Your task to perform on an android device: open a bookmark in the chrome app Image 0: 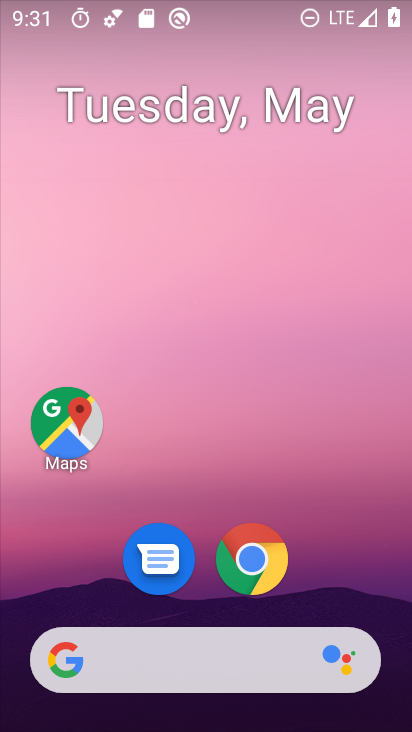
Step 0: drag from (390, 625) to (250, 9)
Your task to perform on an android device: open a bookmark in the chrome app Image 1: 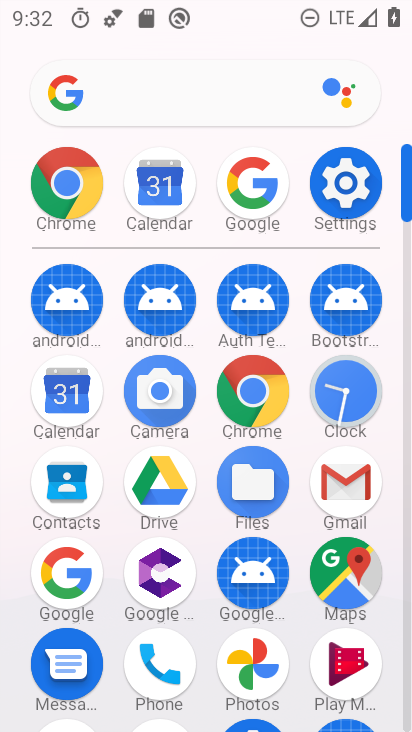
Step 1: click (277, 373)
Your task to perform on an android device: open a bookmark in the chrome app Image 2: 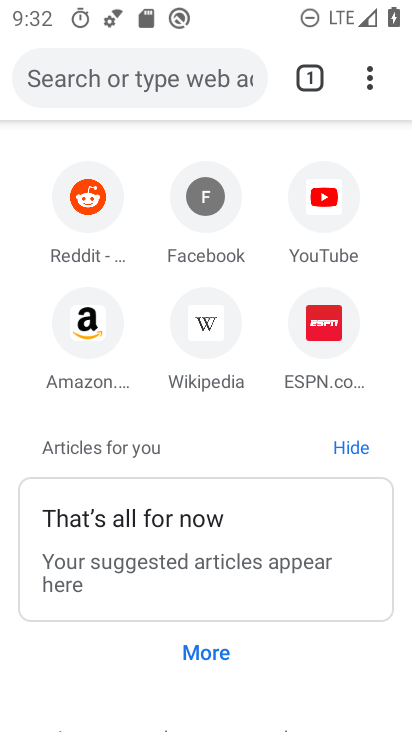
Step 2: click (372, 75)
Your task to perform on an android device: open a bookmark in the chrome app Image 3: 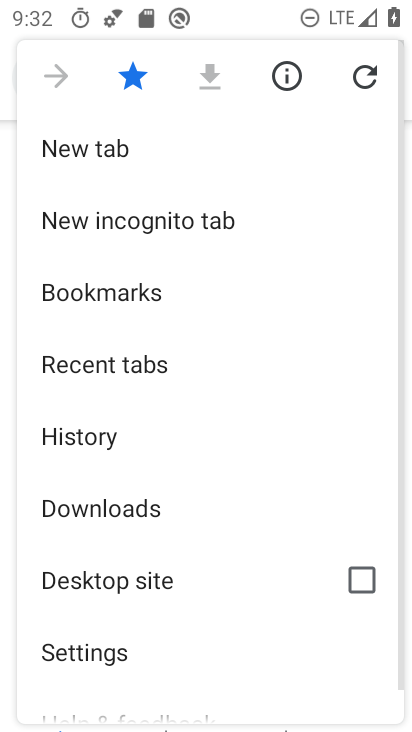
Step 3: click (73, 308)
Your task to perform on an android device: open a bookmark in the chrome app Image 4: 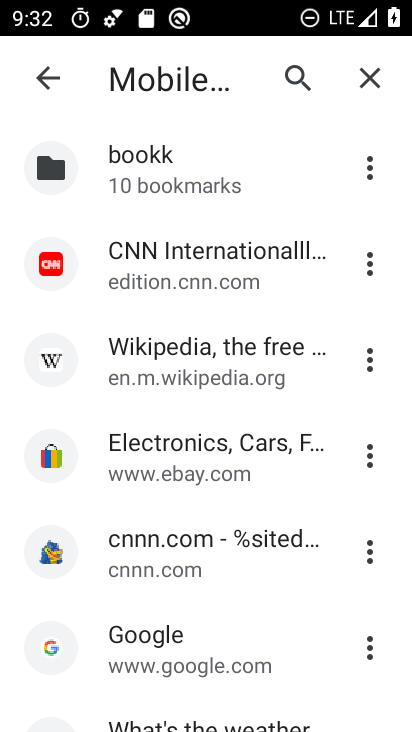
Step 4: task complete